Your task to perform on an android device: Go to location settings Image 0: 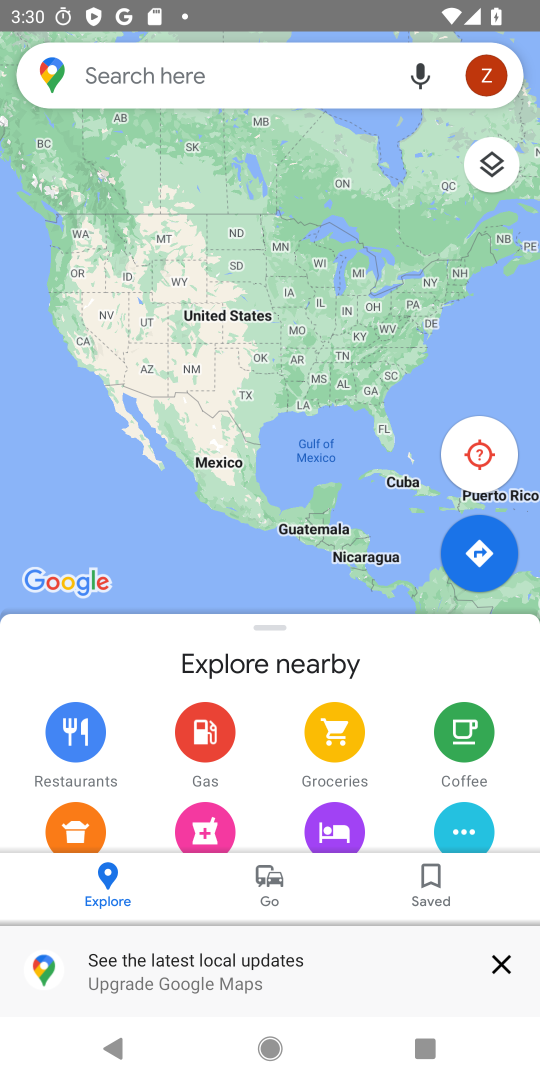
Step 0: press home button
Your task to perform on an android device: Go to location settings Image 1: 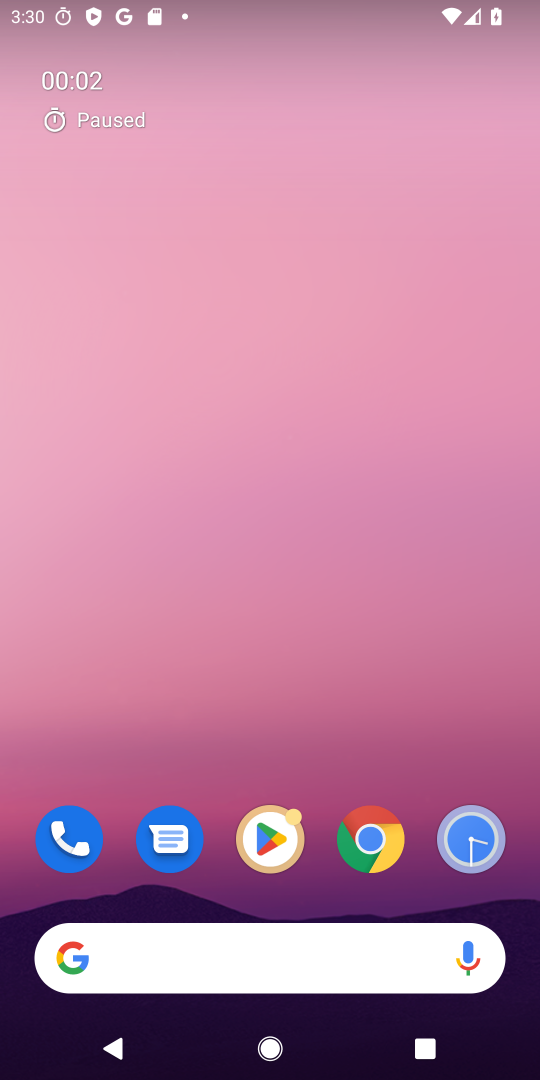
Step 1: drag from (28, 1033) to (385, 437)
Your task to perform on an android device: Go to location settings Image 2: 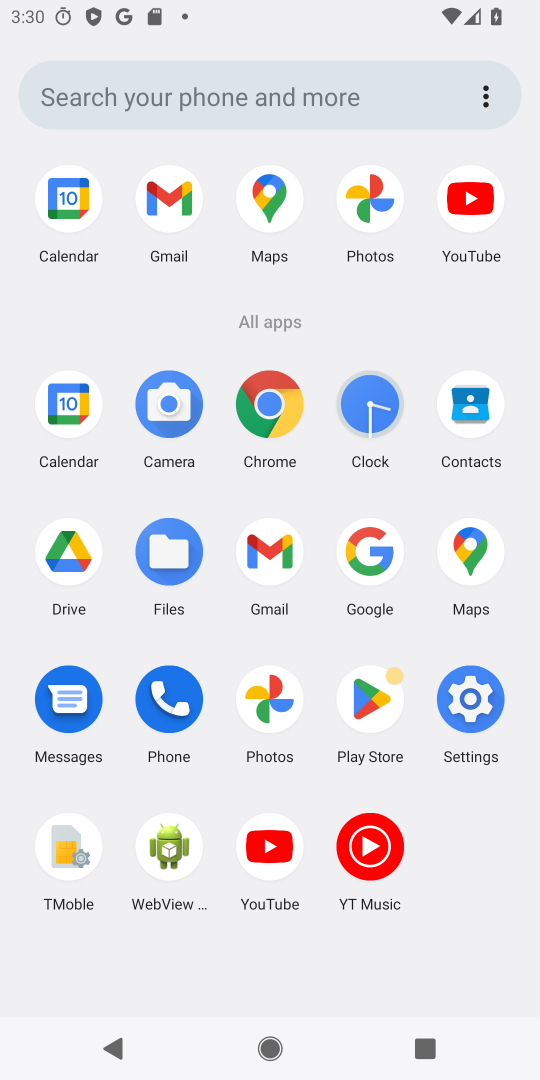
Step 2: click (477, 569)
Your task to perform on an android device: Go to location settings Image 3: 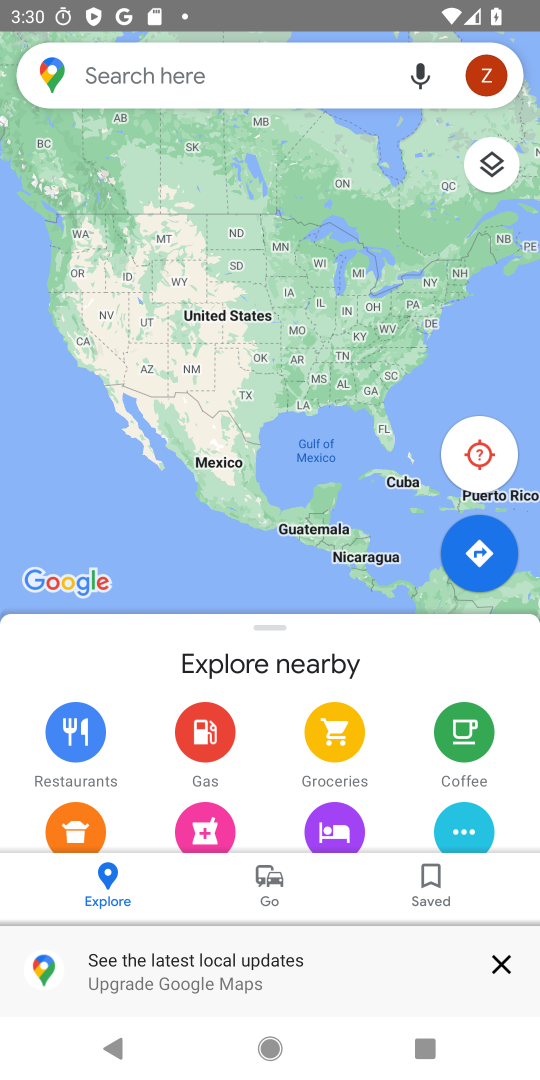
Step 3: click (489, 57)
Your task to perform on an android device: Go to location settings Image 4: 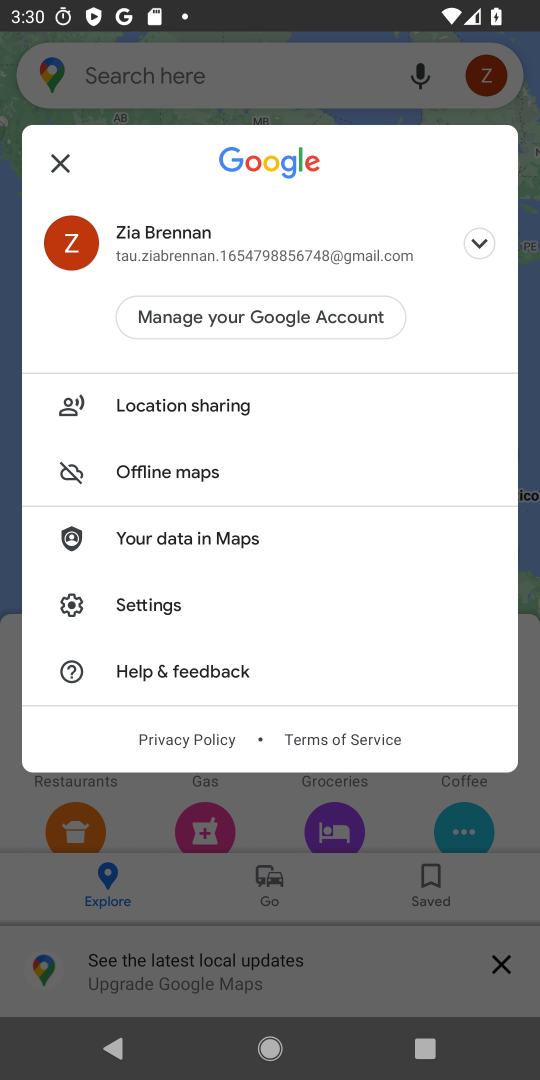
Step 4: click (132, 598)
Your task to perform on an android device: Go to location settings Image 5: 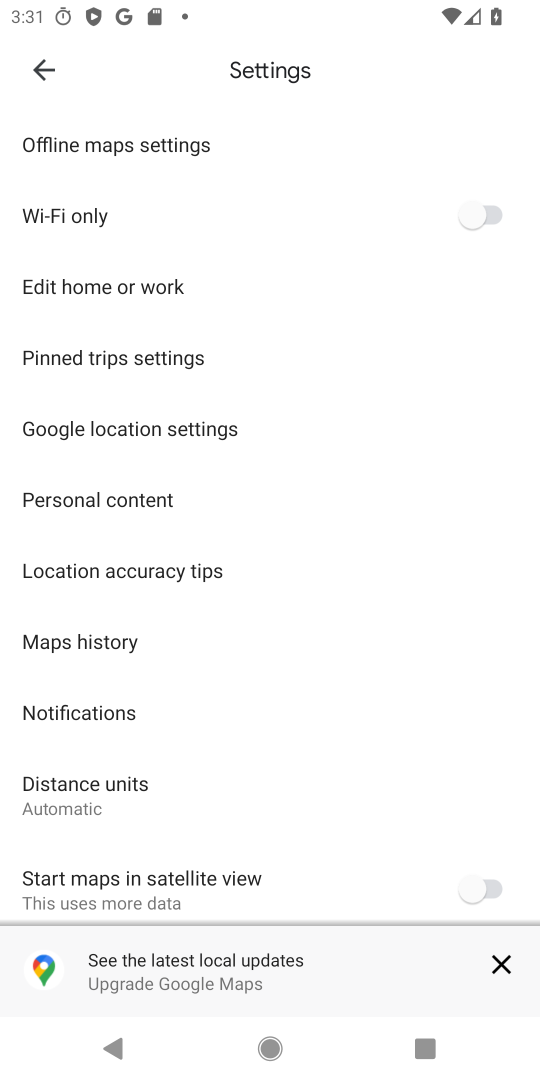
Step 5: task complete